Your task to perform on an android device: Check the weather Image 0: 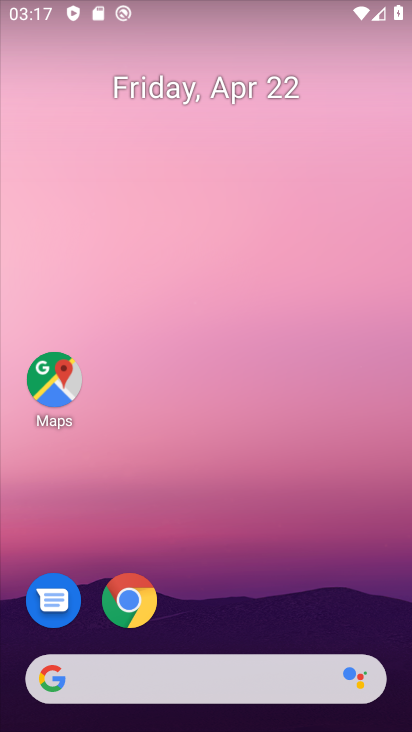
Step 0: drag from (250, 603) to (217, 204)
Your task to perform on an android device: Check the weather Image 1: 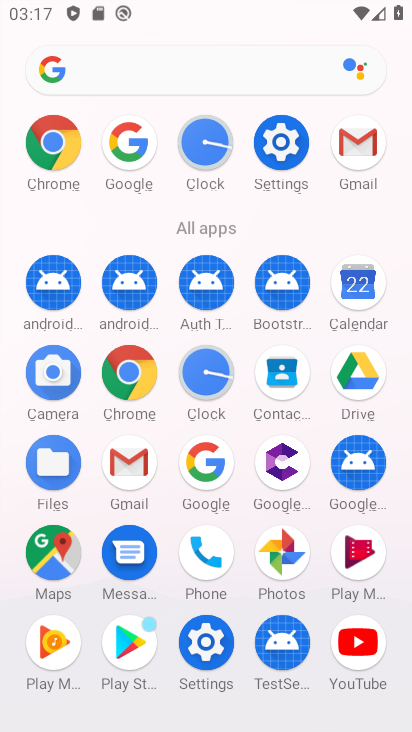
Step 1: click (199, 484)
Your task to perform on an android device: Check the weather Image 2: 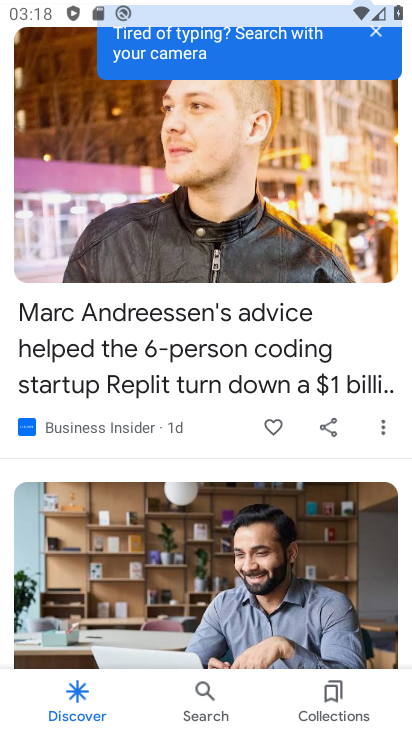
Step 2: drag from (176, 380) to (164, 586)
Your task to perform on an android device: Check the weather Image 3: 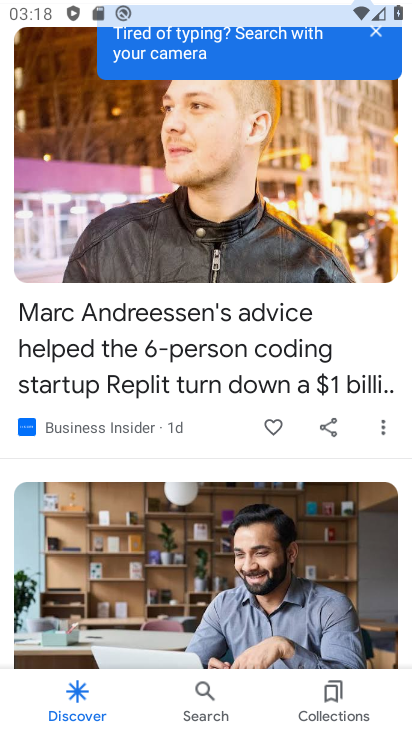
Step 3: drag from (294, 208) to (281, 523)
Your task to perform on an android device: Check the weather Image 4: 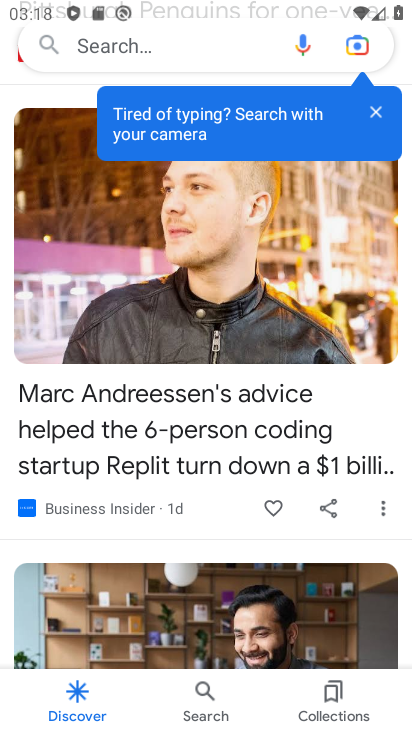
Step 4: drag from (223, 327) to (209, 596)
Your task to perform on an android device: Check the weather Image 5: 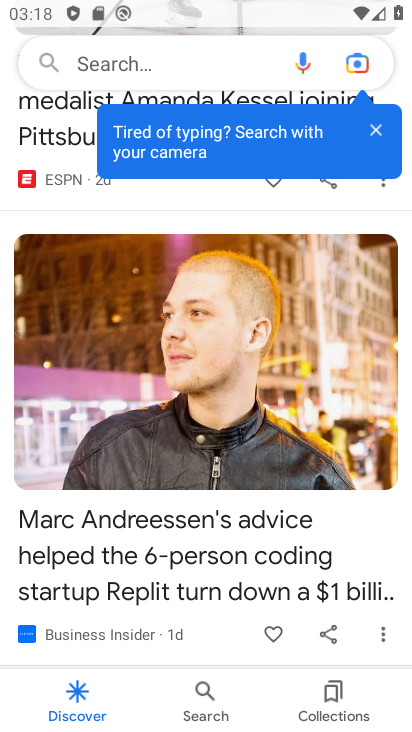
Step 5: drag from (302, 336) to (298, 601)
Your task to perform on an android device: Check the weather Image 6: 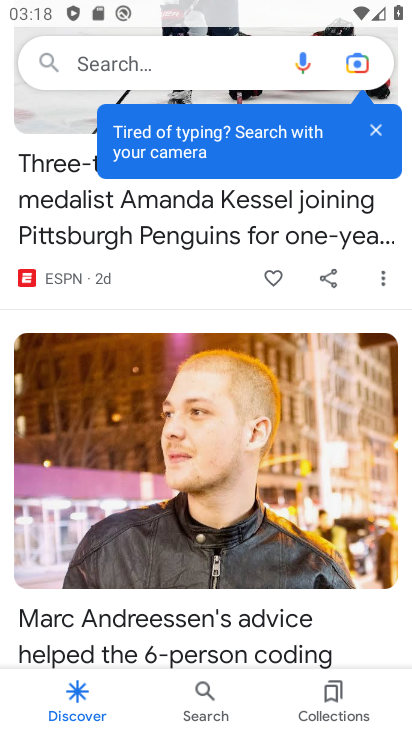
Step 6: drag from (278, 473) to (234, 646)
Your task to perform on an android device: Check the weather Image 7: 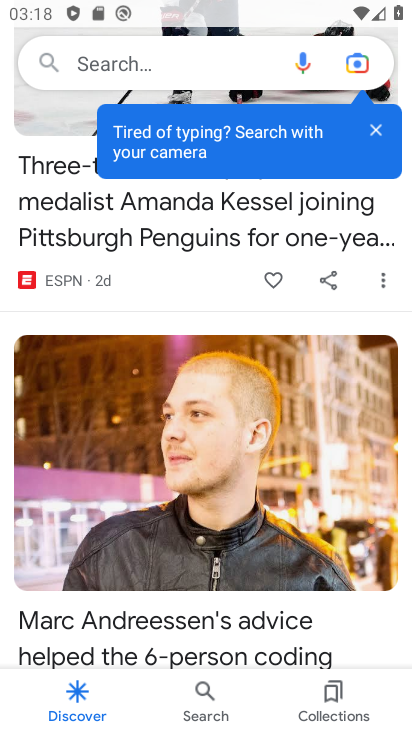
Step 7: drag from (172, 393) to (215, 687)
Your task to perform on an android device: Check the weather Image 8: 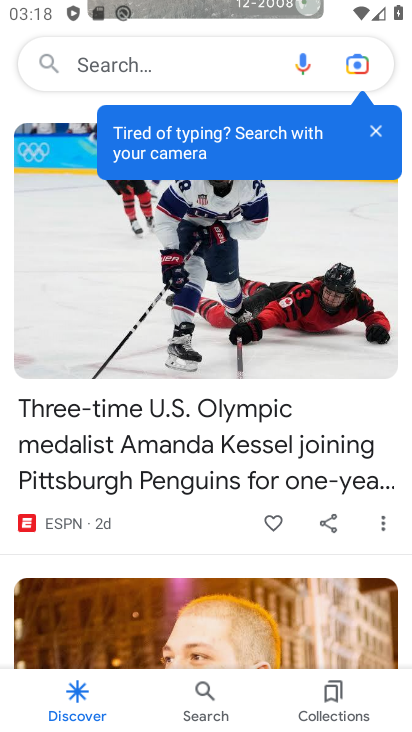
Step 8: drag from (239, 360) to (233, 598)
Your task to perform on an android device: Check the weather Image 9: 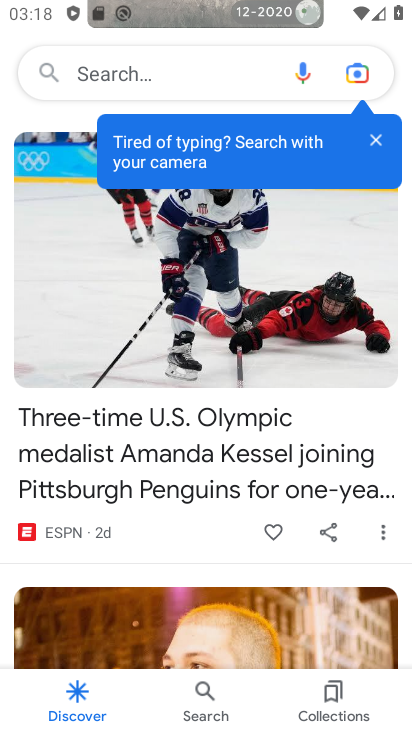
Step 9: click (129, 69)
Your task to perform on an android device: Check the weather Image 10: 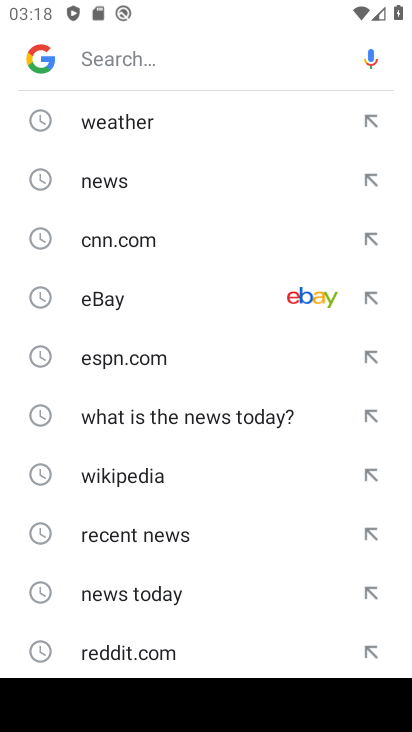
Step 10: click (100, 124)
Your task to perform on an android device: Check the weather Image 11: 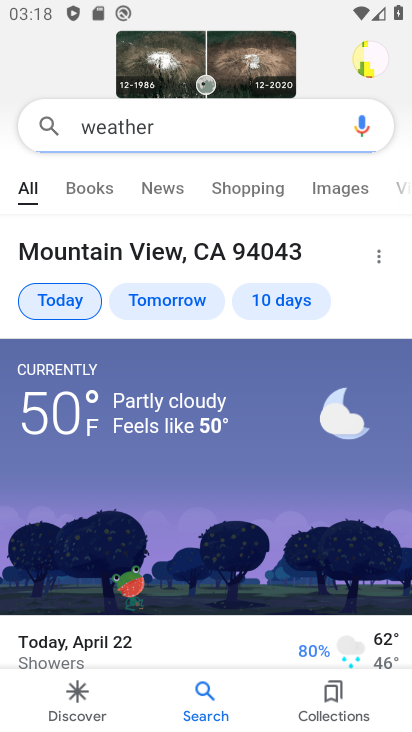
Step 11: task complete